Your task to perform on an android device: Open Amazon Image 0: 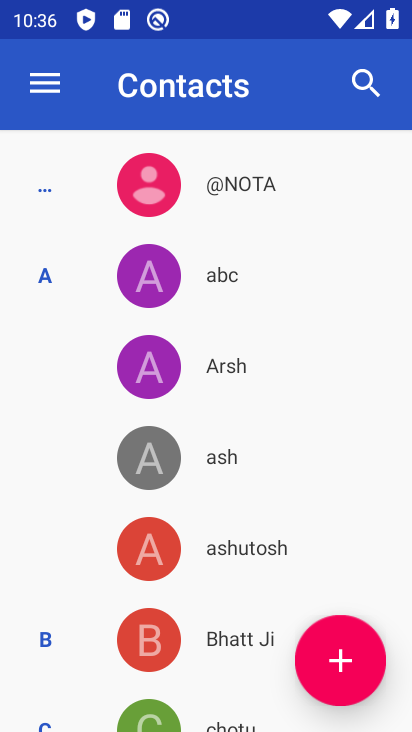
Step 0: press home button
Your task to perform on an android device: Open Amazon Image 1: 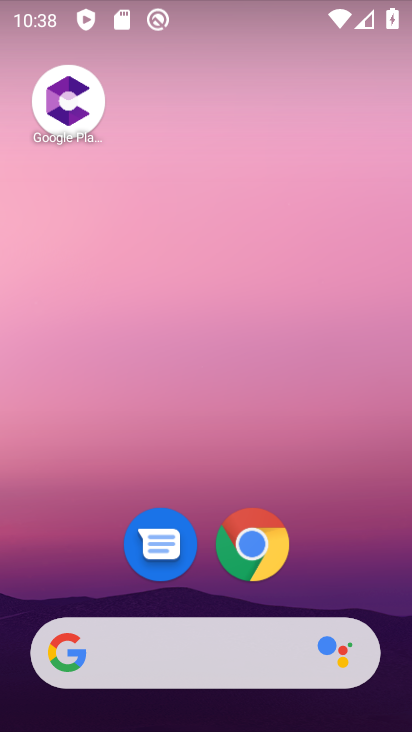
Step 1: click (243, 545)
Your task to perform on an android device: Open Amazon Image 2: 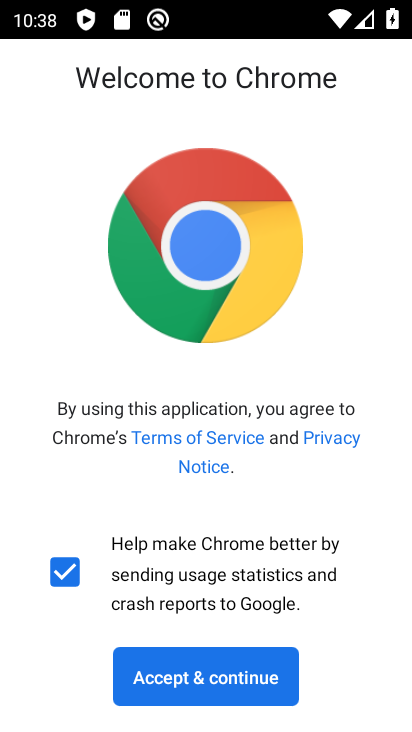
Step 2: click (221, 661)
Your task to perform on an android device: Open Amazon Image 3: 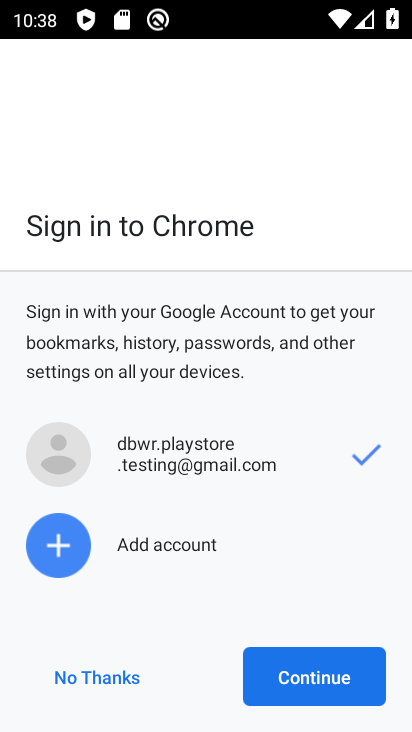
Step 3: click (303, 669)
Your task to perform on an android device: Open Amazon Image 4: 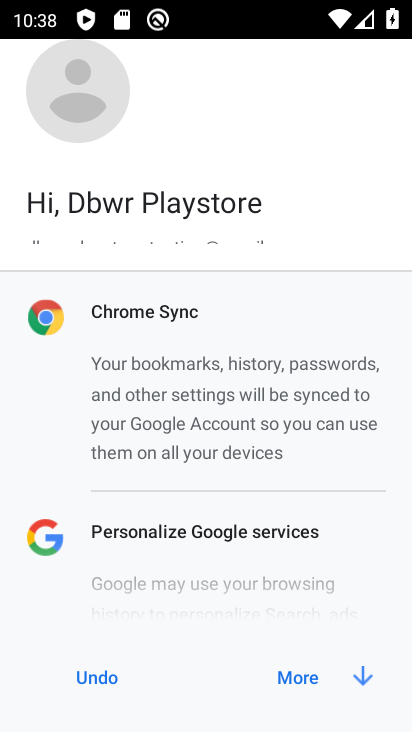
Step 4: click (307, 688)
Your task to perform on an android device: Open Amazon Image 5: 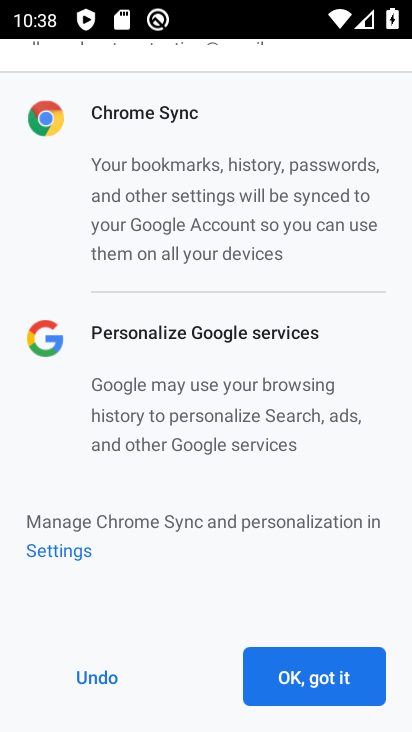
Step 5: click (285, 668)
Your task to perform on an android device: Open Amazon Image 6: 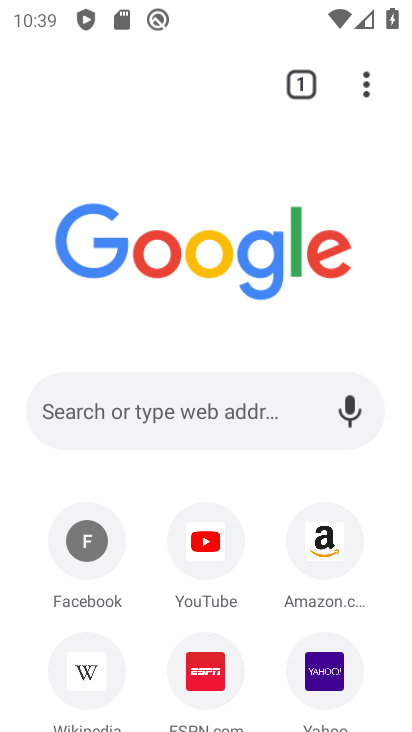
Step 6: click (293, 561)
Your task to perform on an android device: Open Amazon Image 7: 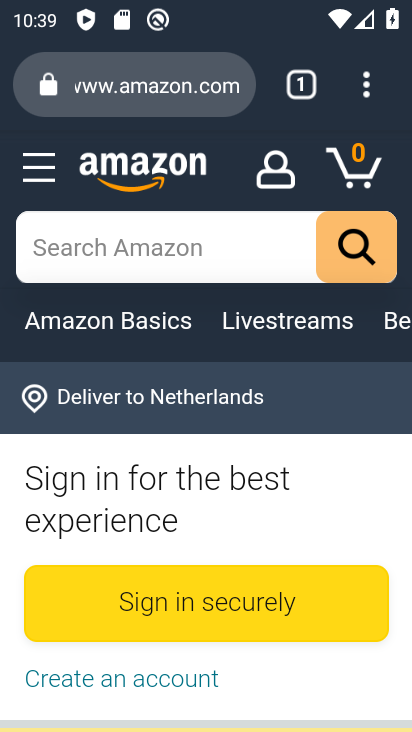
Step 7: task complete